Your task to perform on an android device: What's the weather today? Image 0: 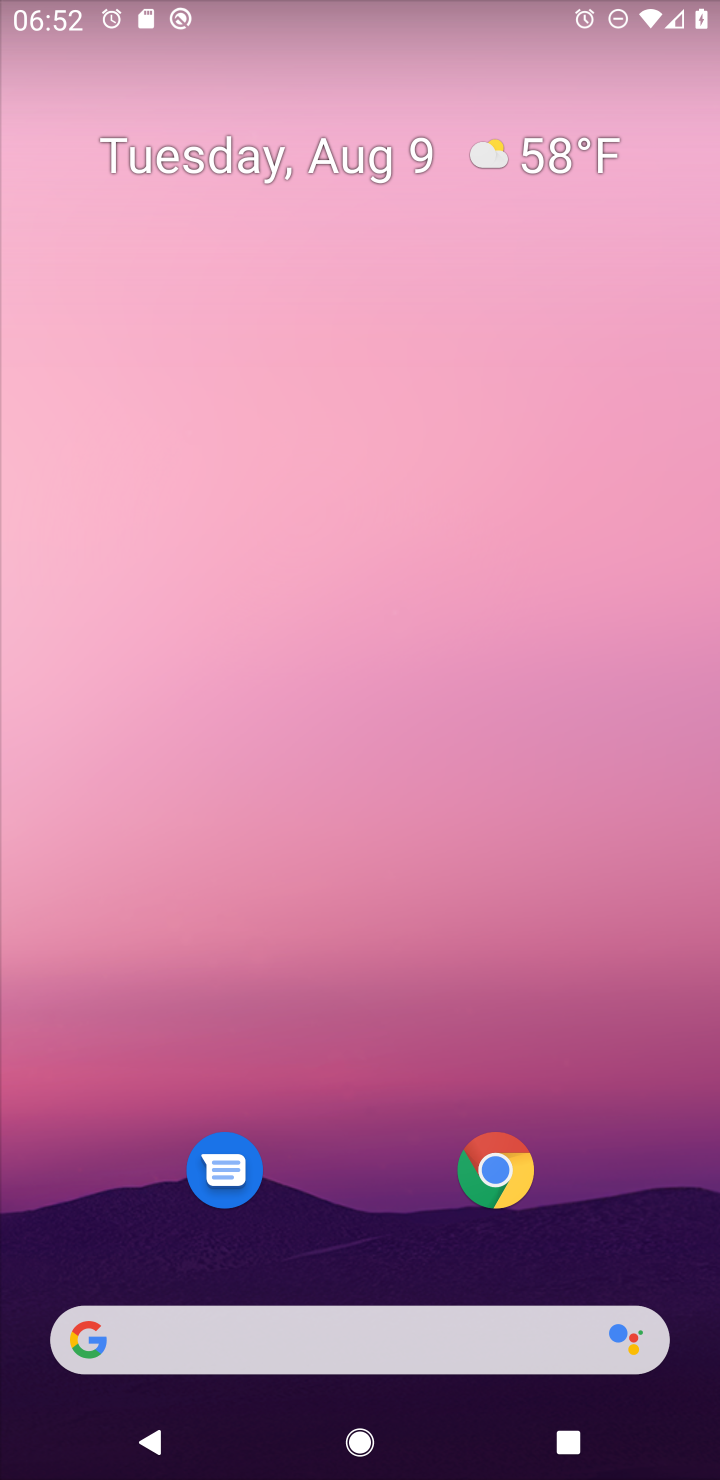
Step 0: press home button
Your task to perform on an android device: What's the weather today? Image 1: 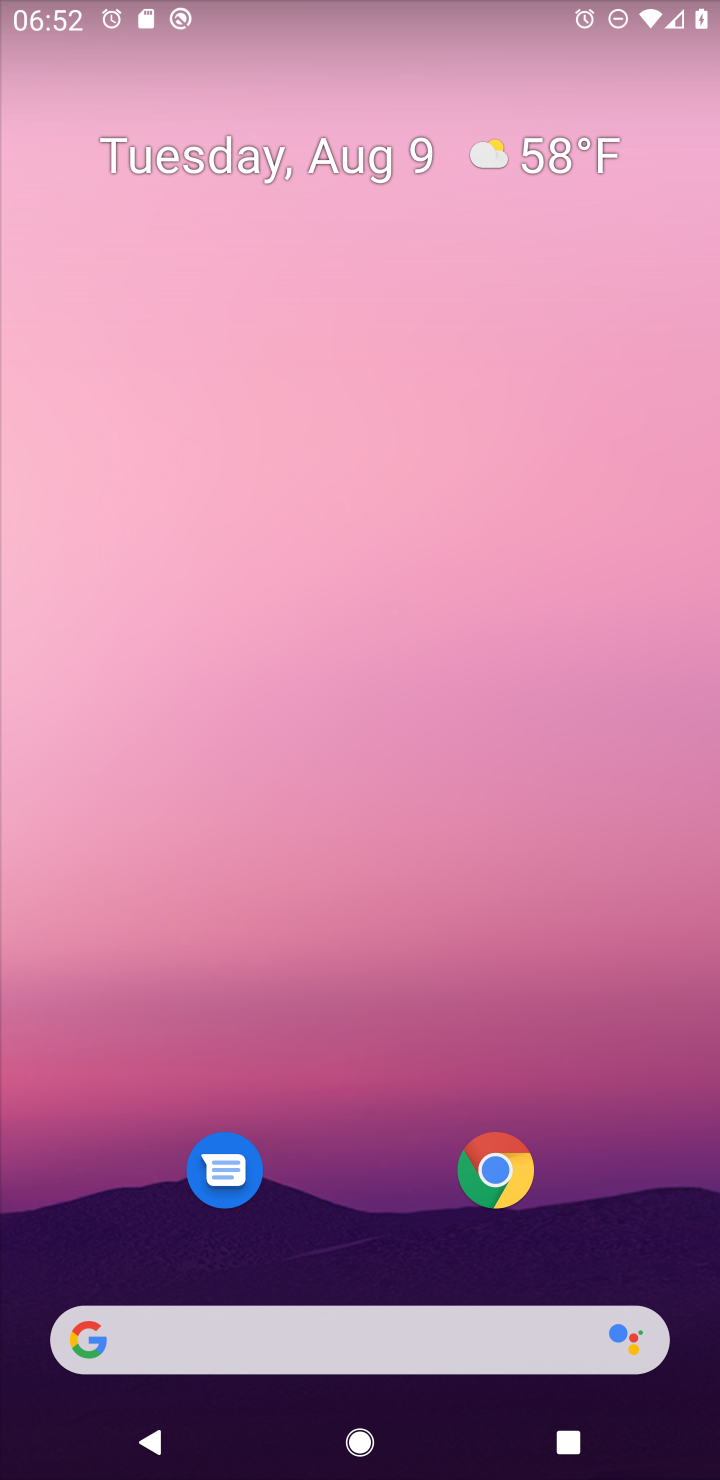
Step 1: click (83, 1342)
Your task to perform on an android device: What's the weather today? Image 2: 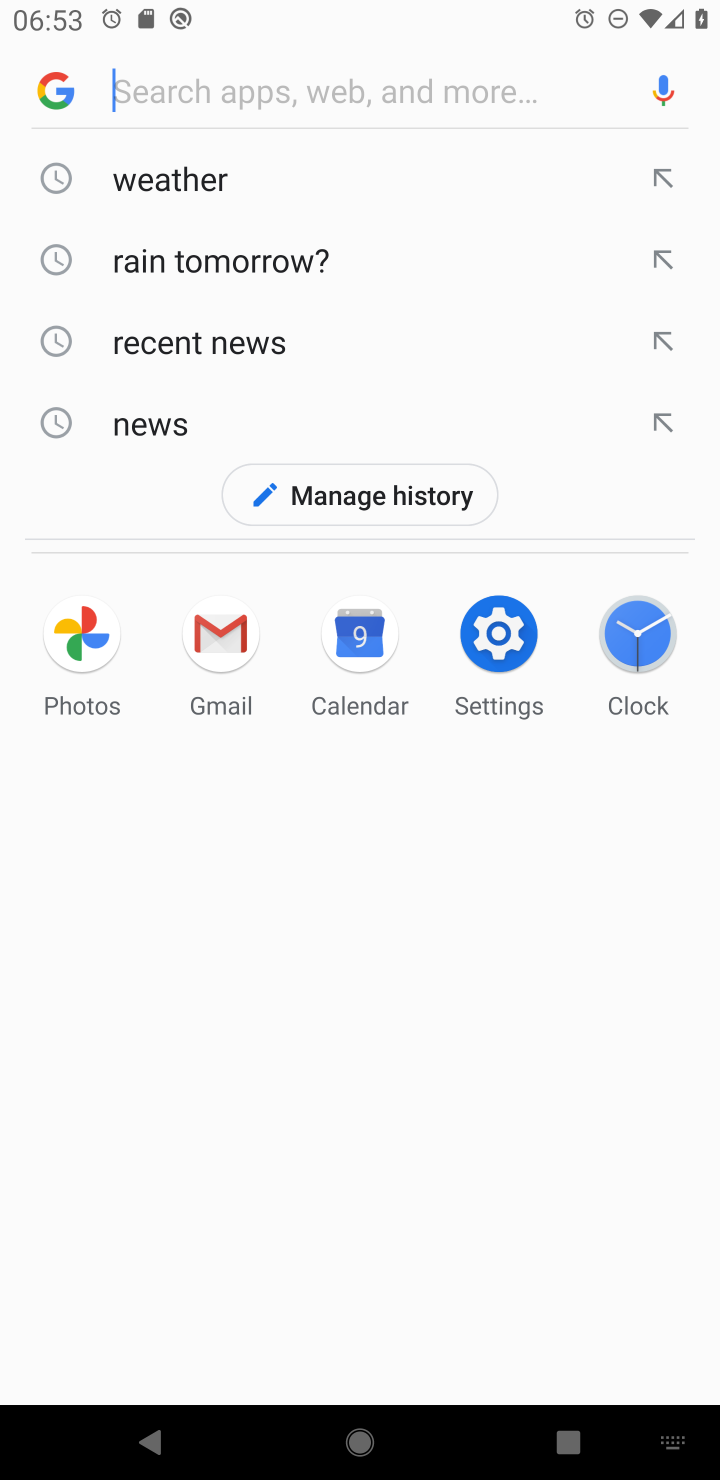
Step 2: type "weather today?"
Your task to perform on an android device: What's the weather today? Image 3: 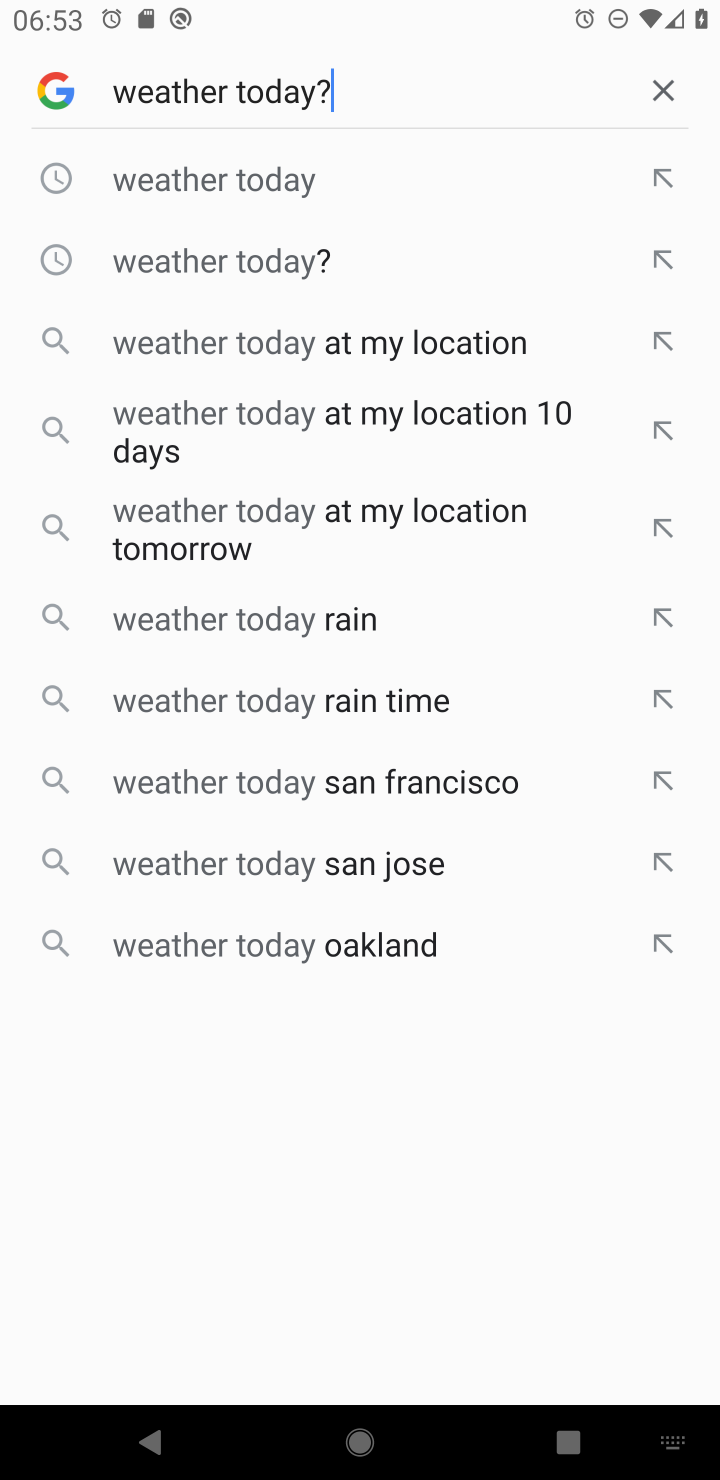
Step 3: press enter
Your task to perform on an android device: What's the weather today? Image 4: 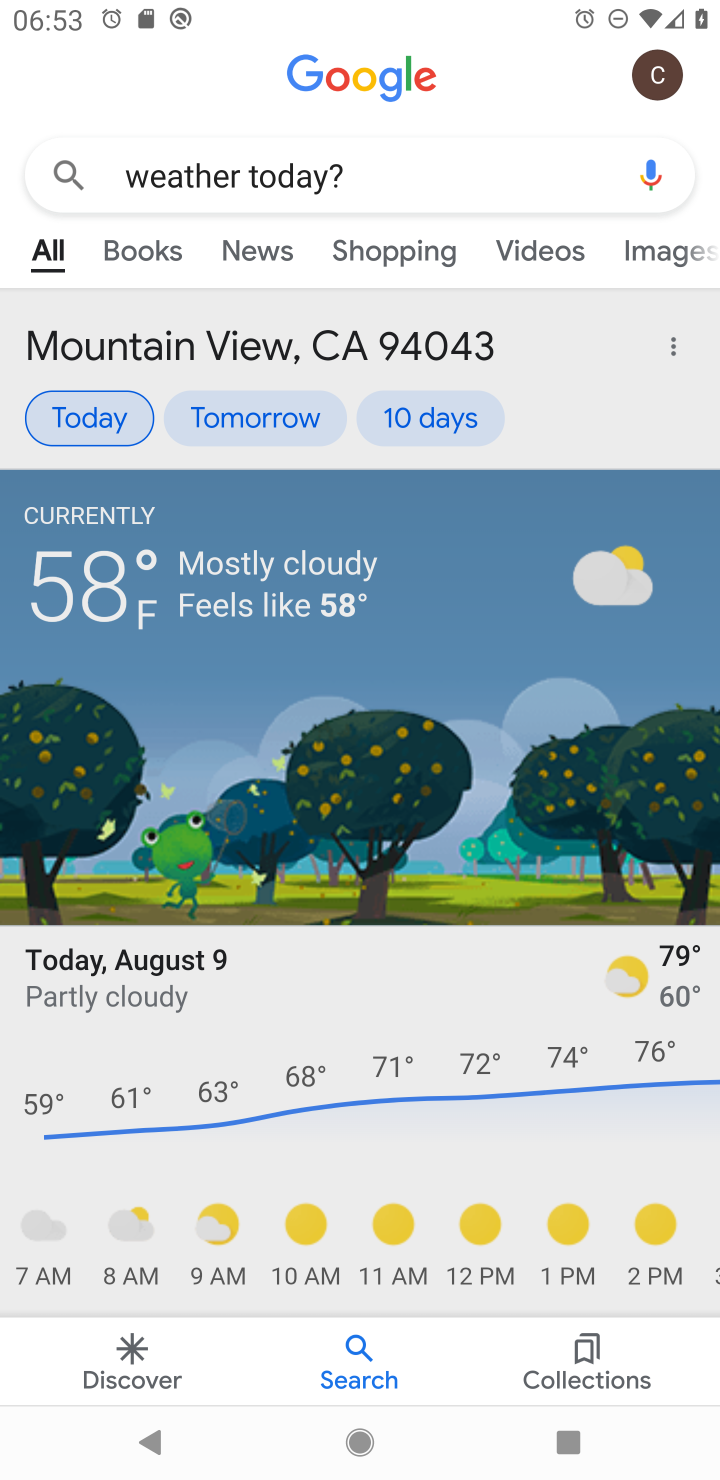
Step 4: task complete